Your task to perform on an android device: Do I have any events today? Image 0: 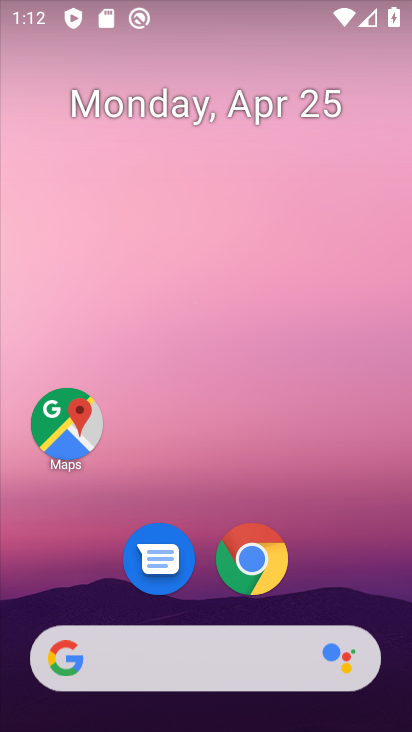
Step 0: drag from (198, 518) to (189, 0)
Your task to perform on an android device: Do I have any events today? Image 1: 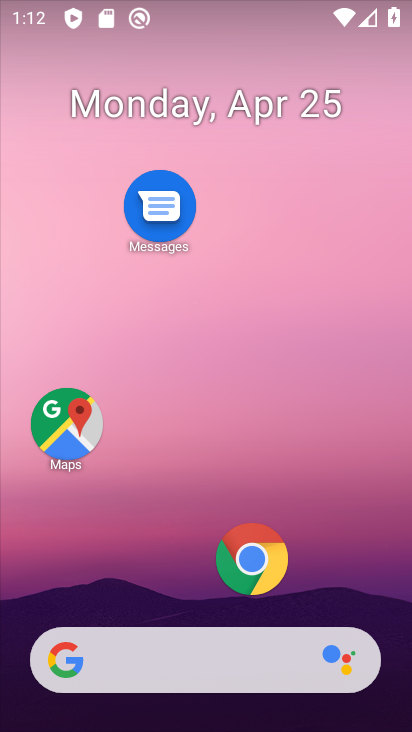
Step 1: drag from (169, 570) to (214, 94)
Your task to perform on an android device: Do I have any events today? Image 2: 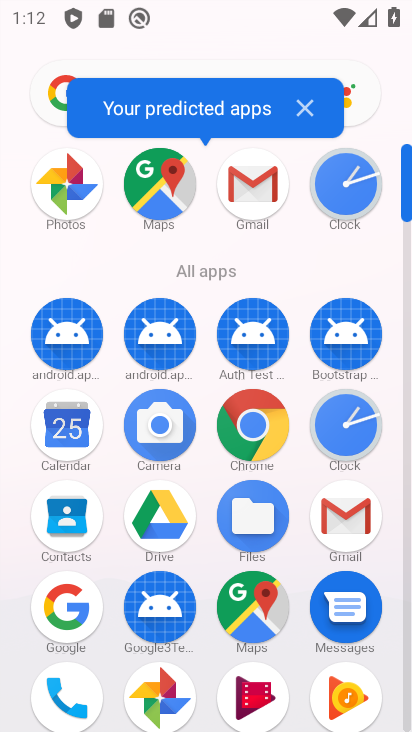
Step 2: click (73, 435)
Your task to perform on an android device: Do I have any events today? Image 3: 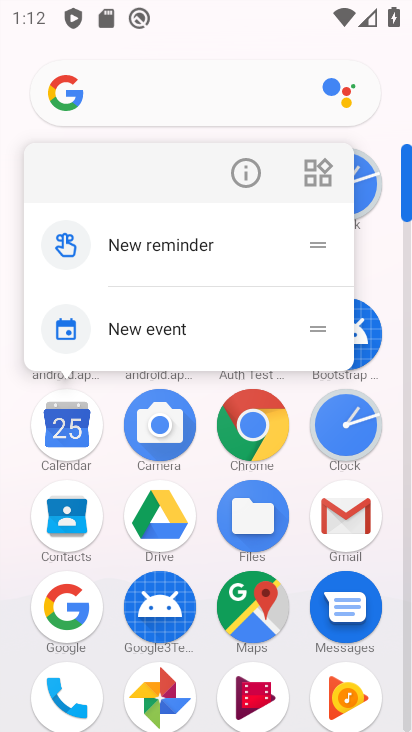
Step 3: click (212, 43)
Your task to perform on an android device: Do I have any events today? Image 4: 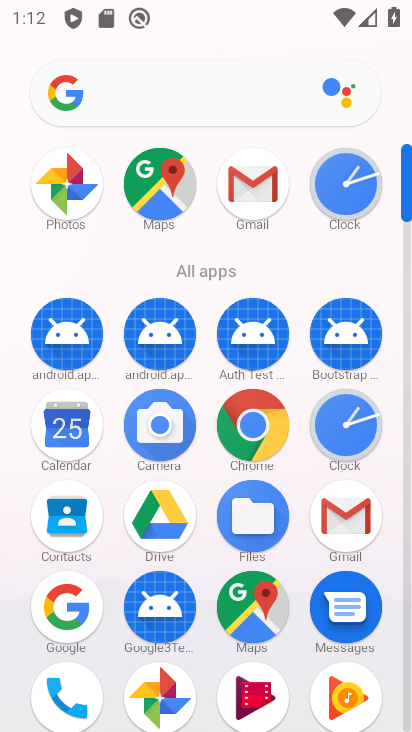
Step 4: click (70, 434)
Your task to perform on an android device: Do I have any events today? Image 5: 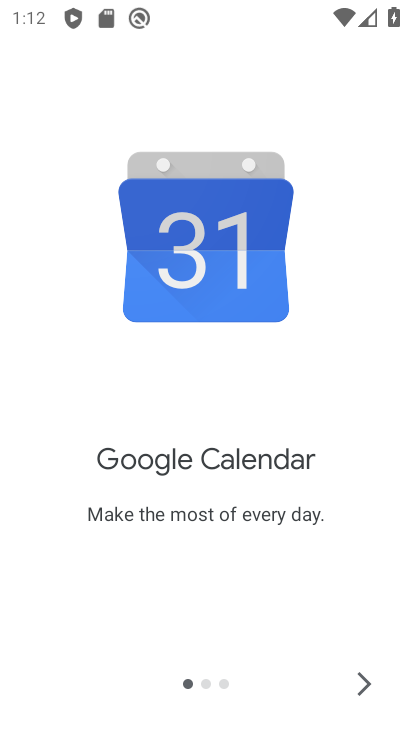
Step 5: click (359, 680)
Your task to perform on an android device: Do I have any events today? Image 6: 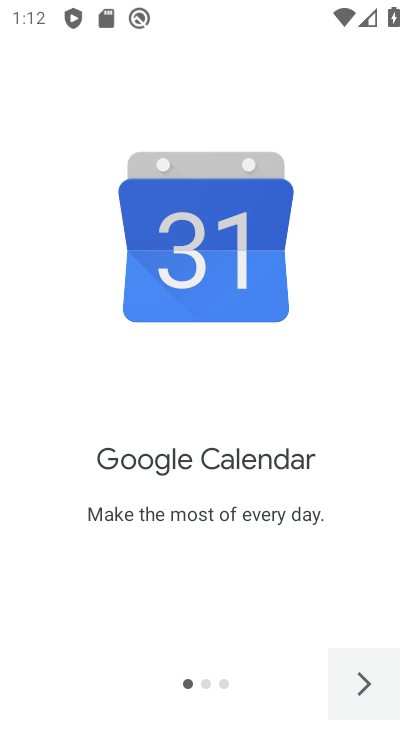
Step 6: click (359, 680)
Your task to perform on an android device: Do I have any events today? Image 7: 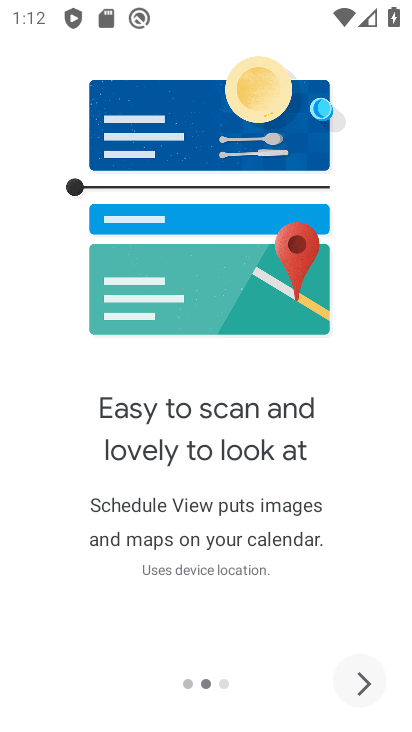
Step 7: click (359, 680)
Your task to perform on an android device: Do I have any events today? Image 8: 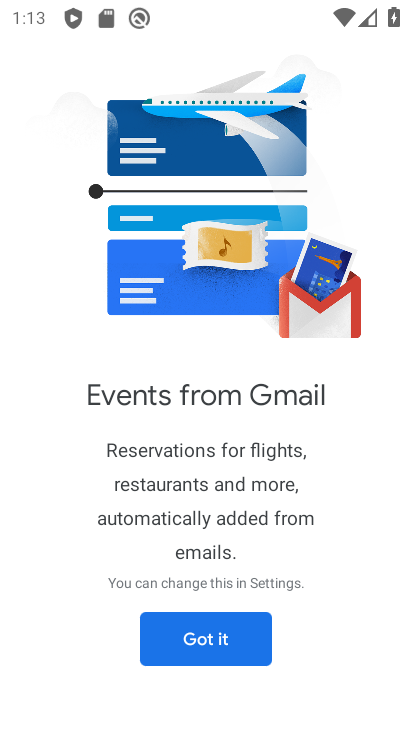
Step 8: click (232, 642)
Your task to perform on an android device: Do I have any events today? Image 9: 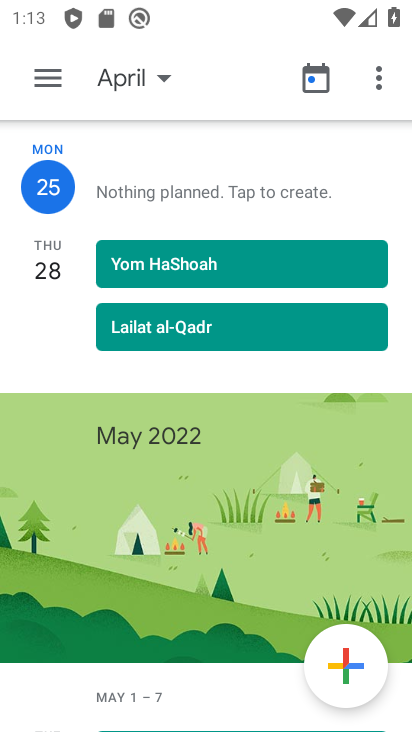
Step 9: click (159, 84)
Your task to perform on an android device: Do I have any events today? Image 10: 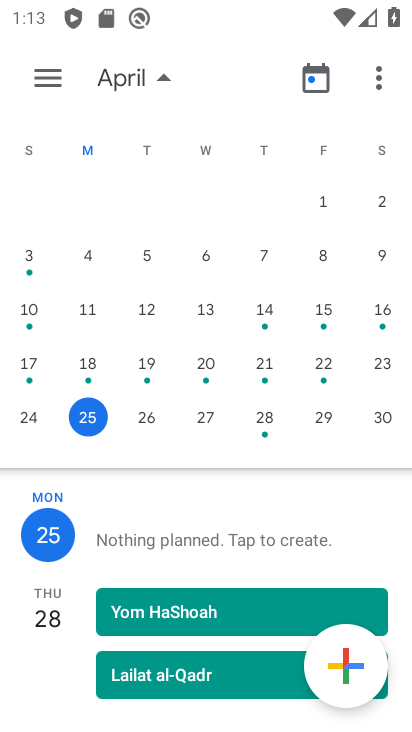
Step 10: click (91, 418)
Your task to perform on an android device: Do I have any events today? Image 11: 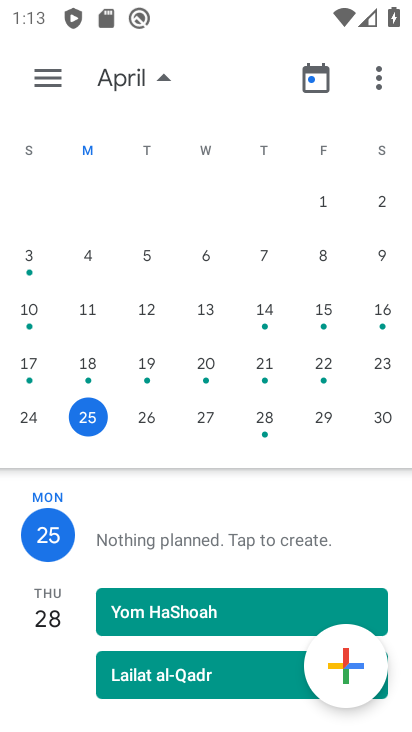
Step 11: task complete